Your task to perform on an android device: snooze an email in the gmail app Image 0: 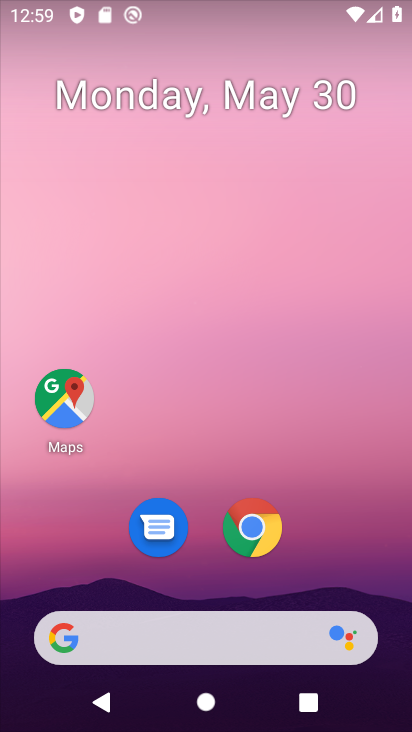
Step 0: drag from (201, 595) to (260, 2)
Your task to perform on an android device: snooze an email in the gmail app Image 1: 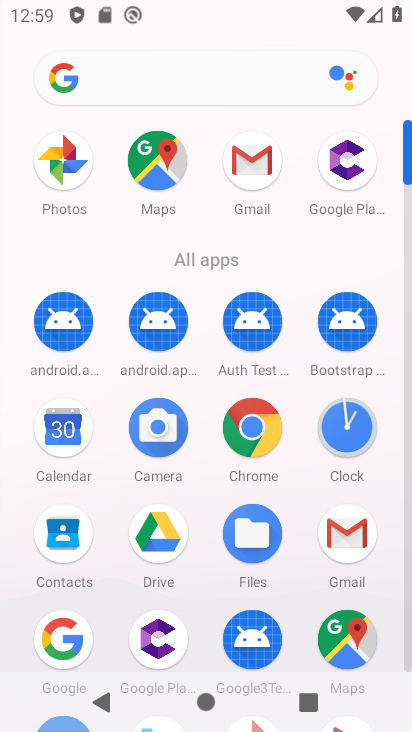
Step 1: click (346, 529)
Your task to perform on an android device: snooze an email in the gmail app Image 2: 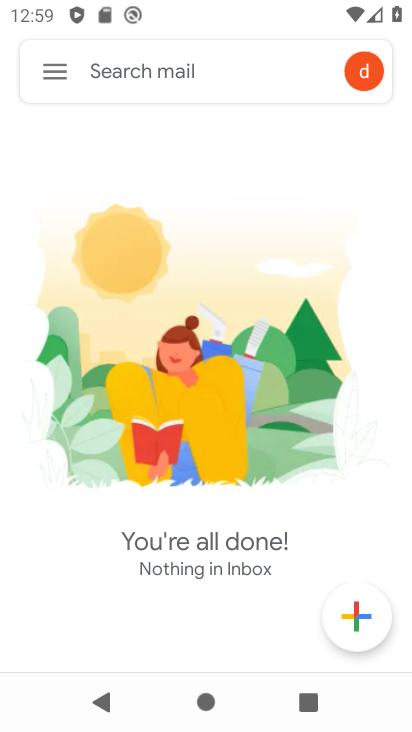
Step 2: click (49, 80)
Your task to perform on an android device: snooze an email in the gmail app Image 3: 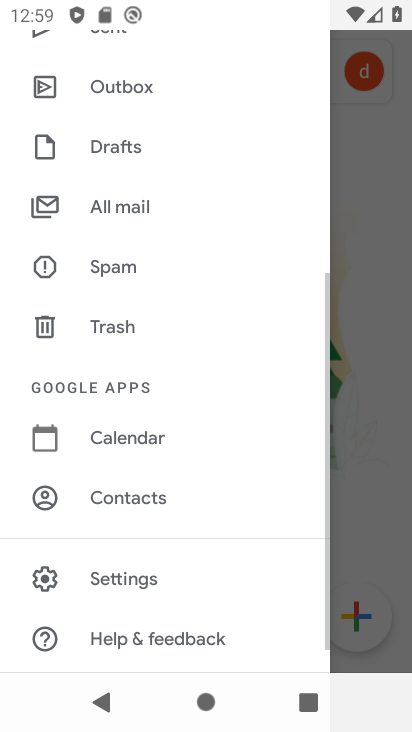
Step 3: click (135, 216)
Your task to perform on an android device: snooze an email in the gmail app Image 4: 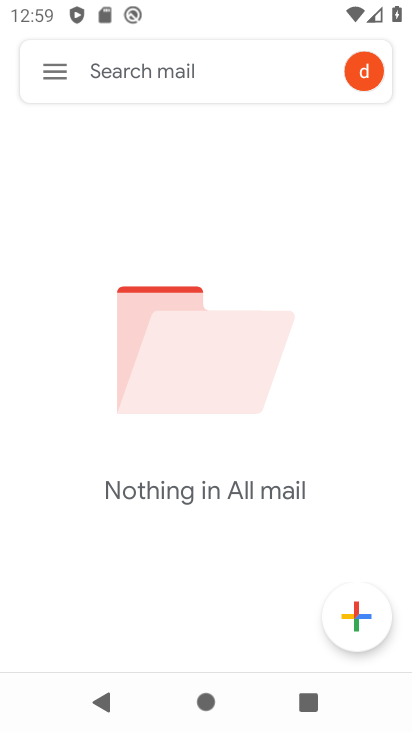
Step 4: task complete